Your task to perform on an android device: Go to ESPN.com Image 0: 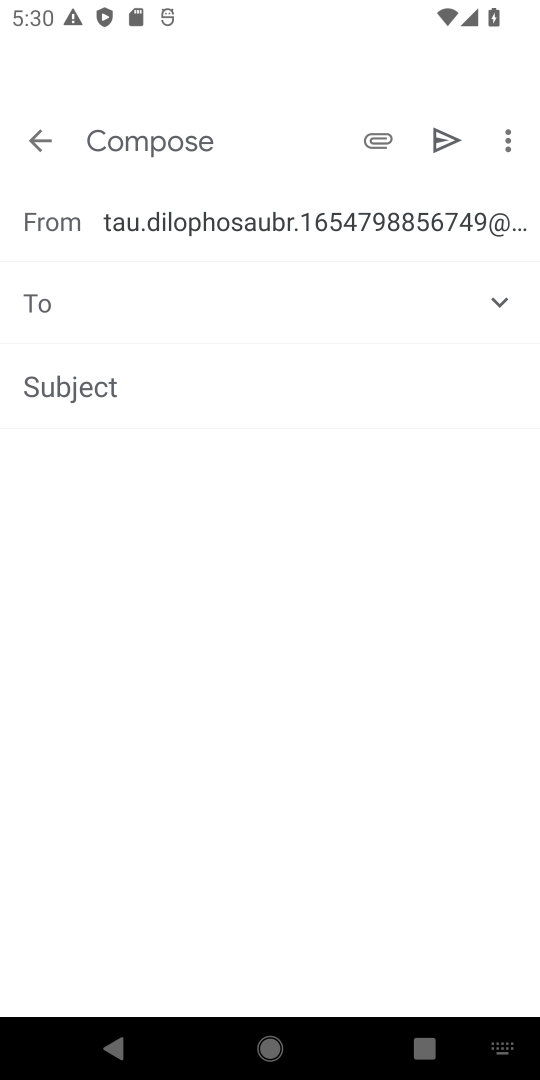
Step 0: press home button
Your task to perform on an android device: Go to ESPN.com Image 1: 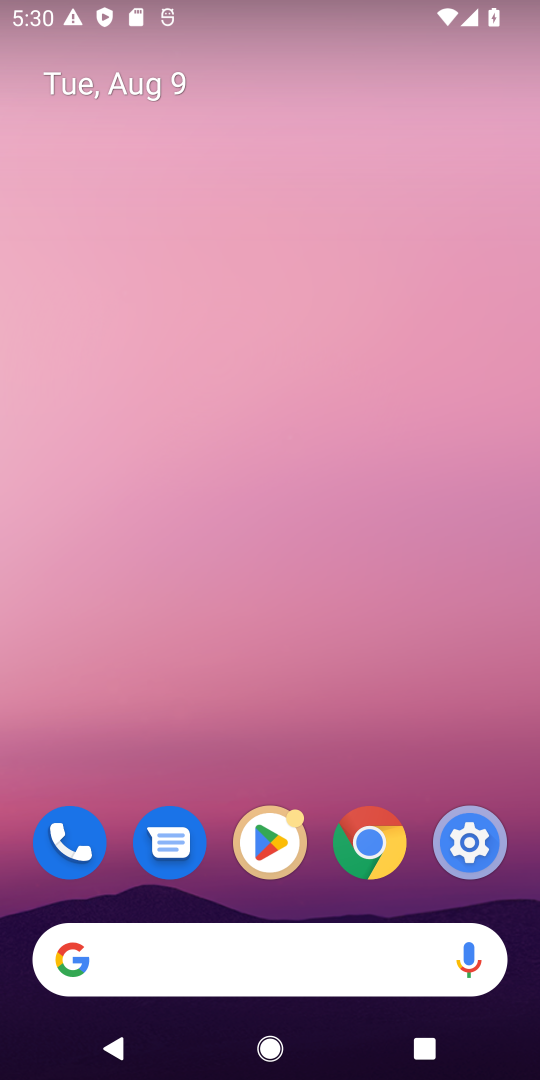
Step 1: drag from (341, 749) to (305, 3)
Your task to perform on an android device: Go to ESPN.com Image 2: 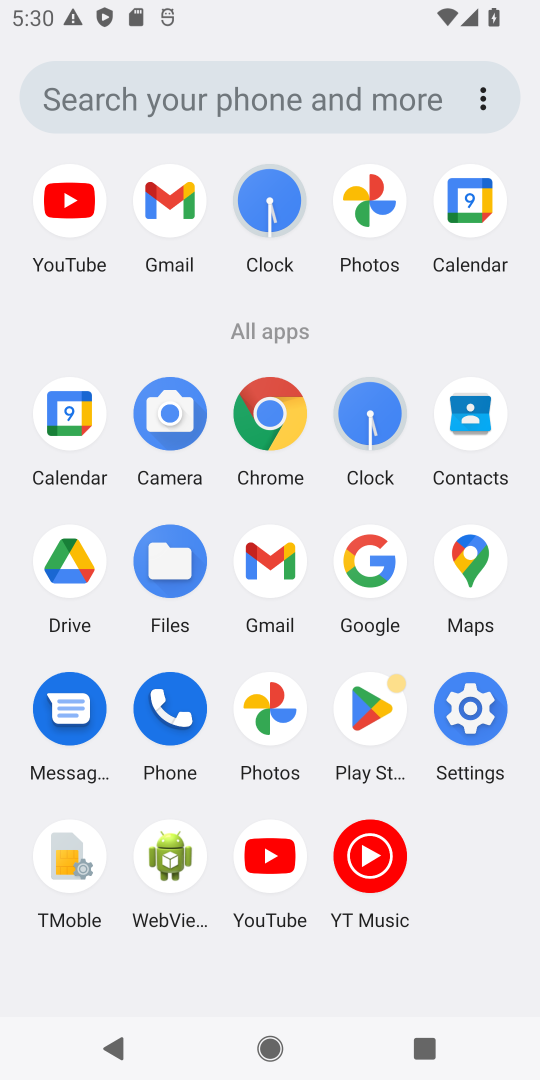
Step 2: click (295, 412)
Your task to perform on an android device: Go to ESPN.com Image 3: 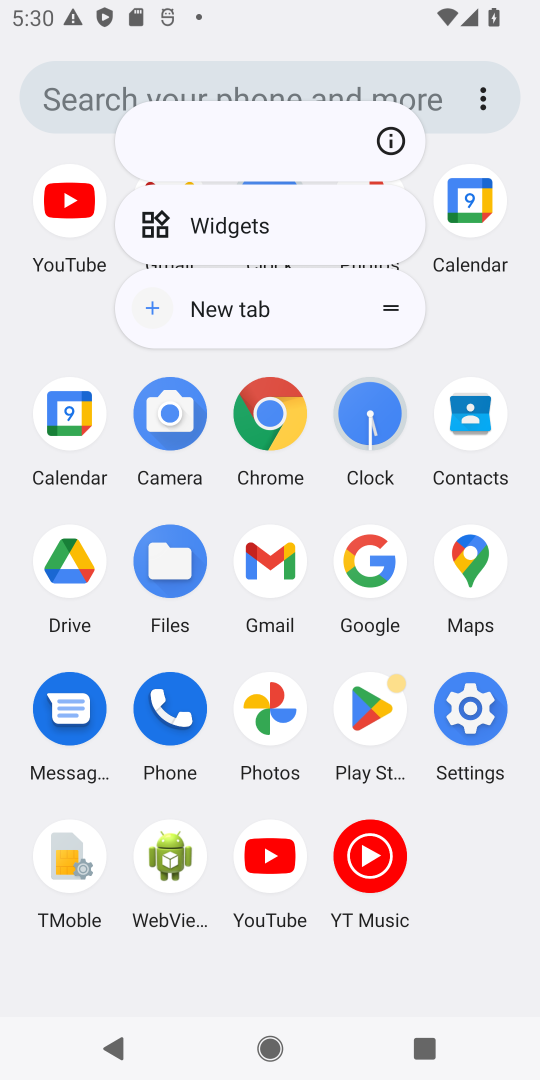
Step 3: click (256, 397)
Your task to perform on an android device: Go to ESPN.com Image 4: 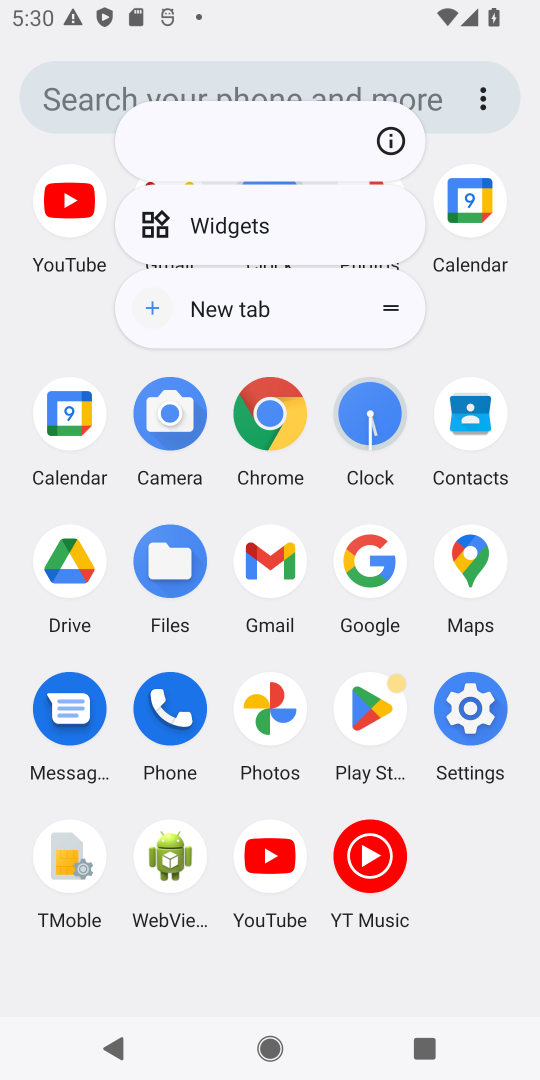
Step 4: click (257, 425)
Your task to perform on an android device: Go to ESPN.com Image 5: 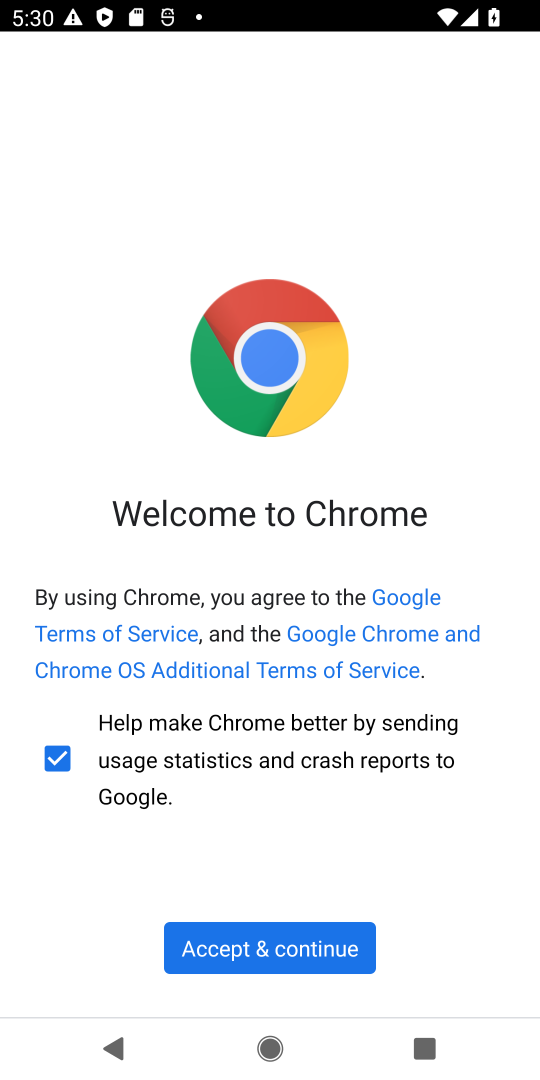
Step 5: click (279, 951)
Your task to perform on an android device: Go to ESPN.com Image 6: 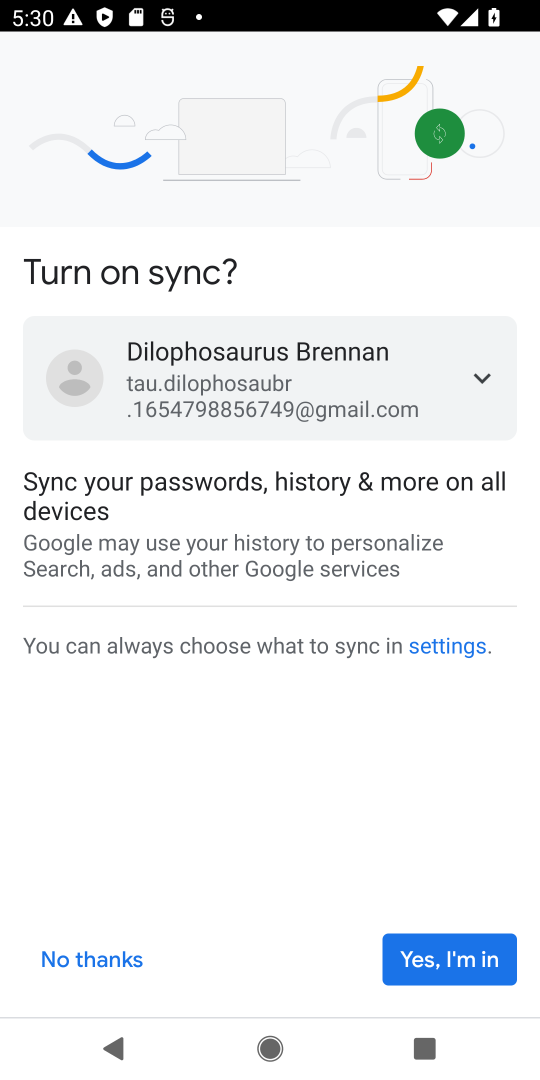
Step 6: click (120, 960)
Your task to perform on an android device: Go to ESPN.com Image 7: 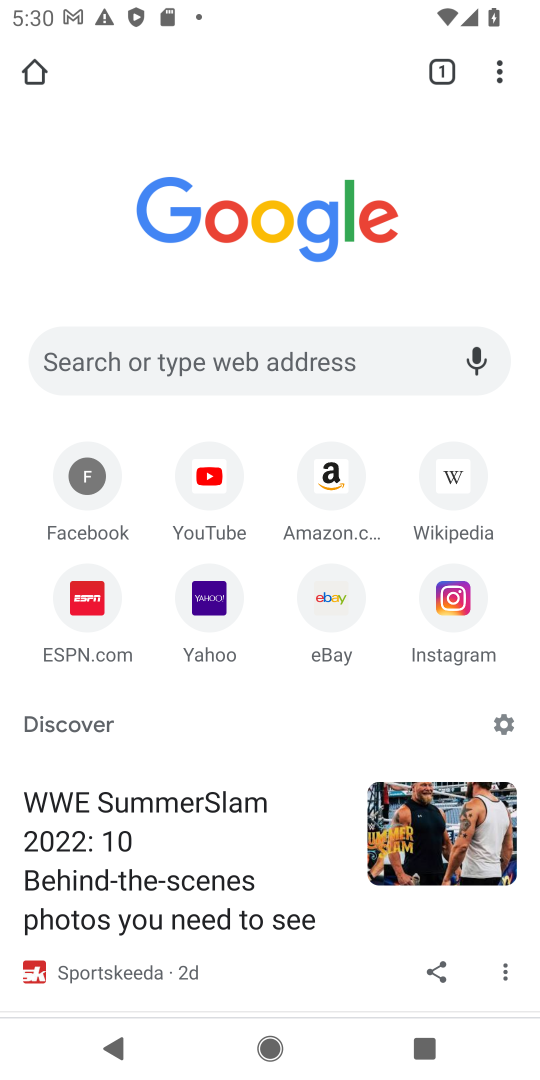
Step 7: click (88, 614)
Your task to perform on an android device: Go to ESPN.com Image 8: 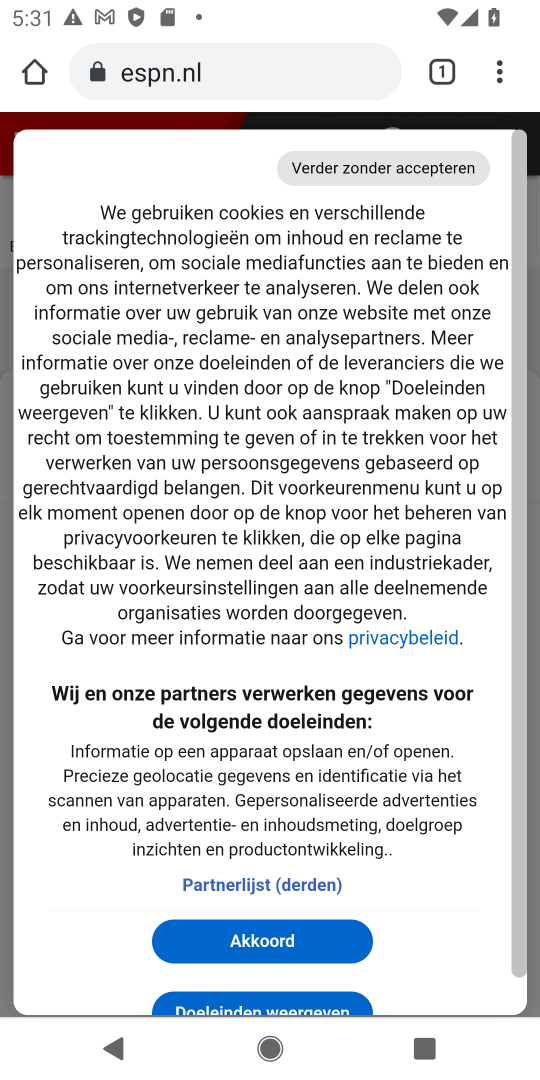
Step 8: task complete